Your task to perform on an android device: What's the weather? Image 0: 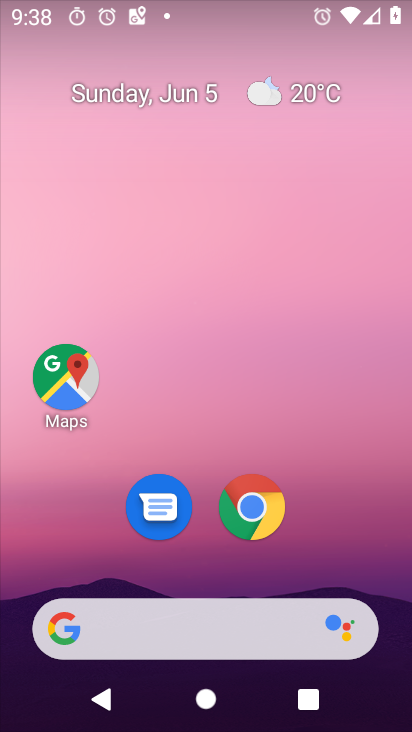
Step 0: drag from (345, 536) to (3, 207)
Your task to perform on an android device: What's the weather? Image 1: 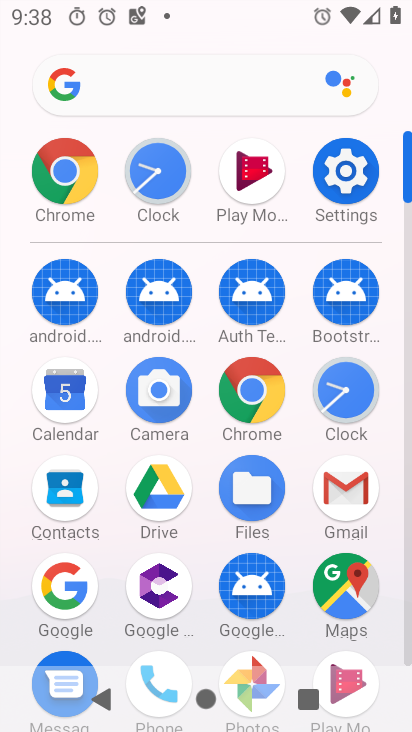
Step 1: click (56, 165)
Your task to perform on an android device: What's the weather? Image 2: 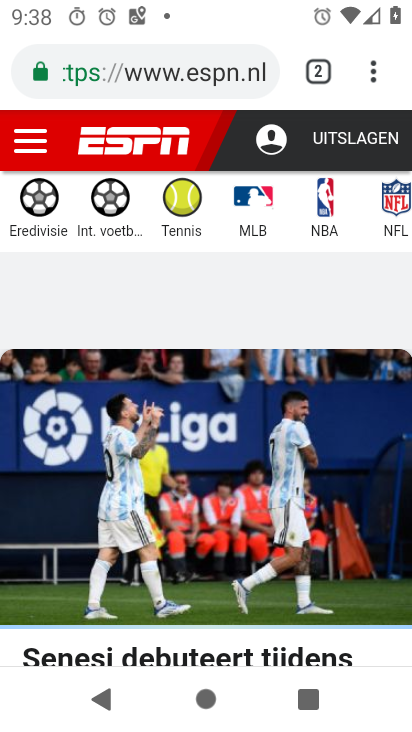
Step 2: click (164, 79)
Your task to perform on an android device: What's the weather? Image 3: 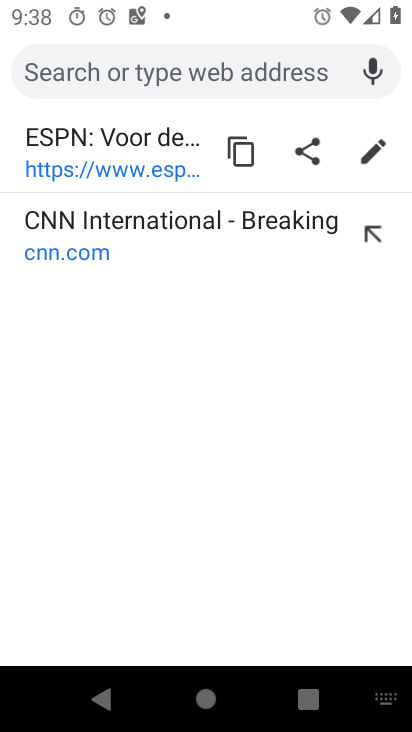
Step 3: type "What's the weather?"
Your task to perform on an android device: What's the weather? Image 4: 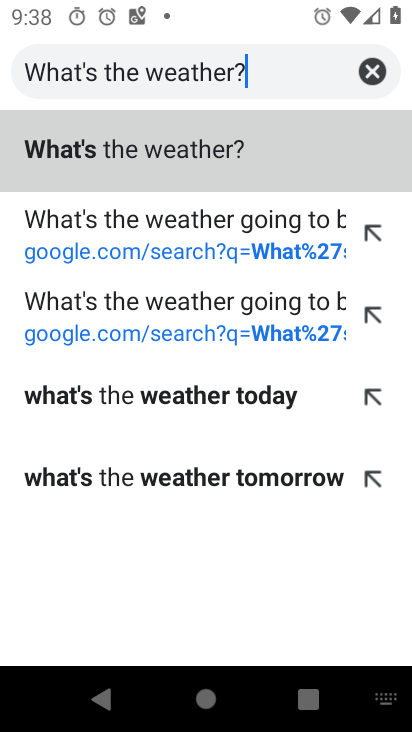
Step 4: type ""
Your task to perform on an android device: What's the weather? Image 5: 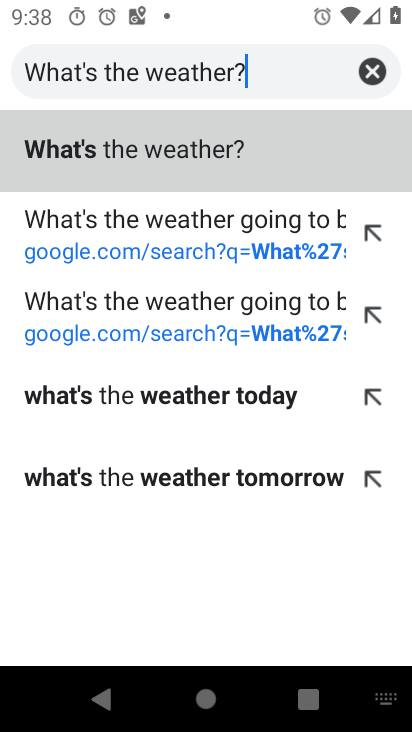
Step 5: click (142, 142)
Your task to perform on an android device: What's the weather? Image 6: 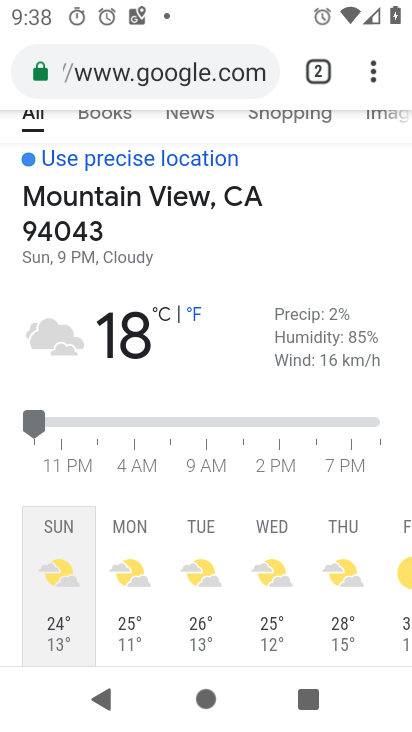
Step 6: task complete